Your task to perform on an android device: turn on location history Image 0: 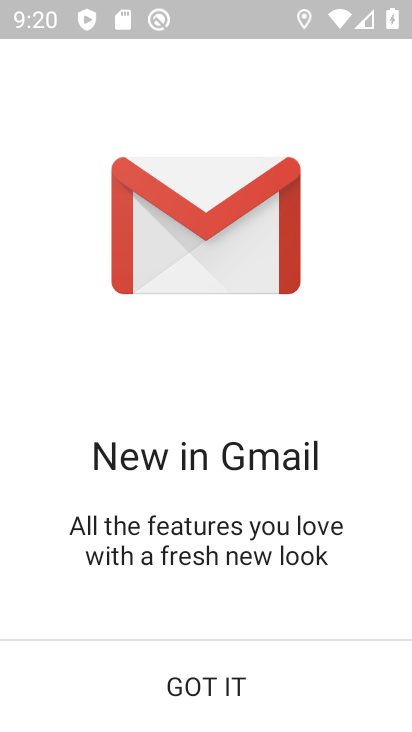
Step 0: press home button
Your task to perform on an android device: turn on location history Image 1: 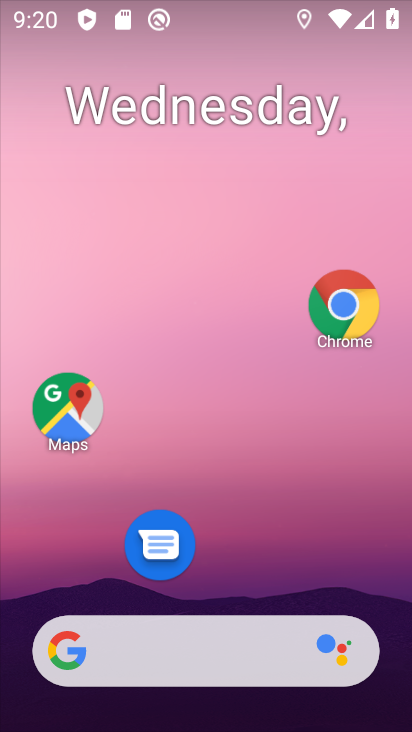
Step 1: drag from (272, 595) to (324, 348)
Your task to perform on an android device: turn on location history Image 2: 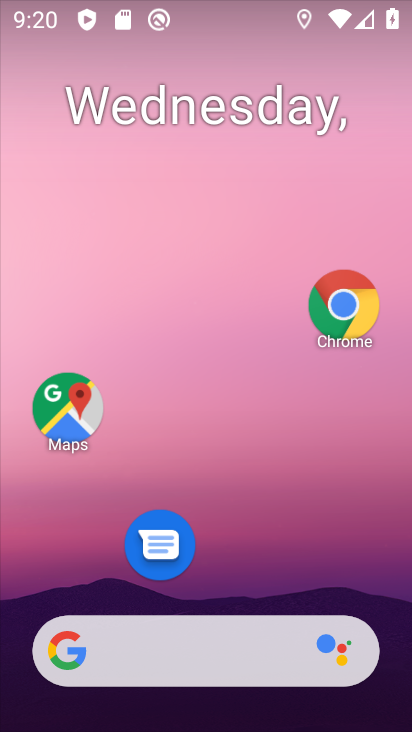
Step 2: drag from (268, 595) to (275, 105)
Your task to perform on an android device: turn on location history Image 3: 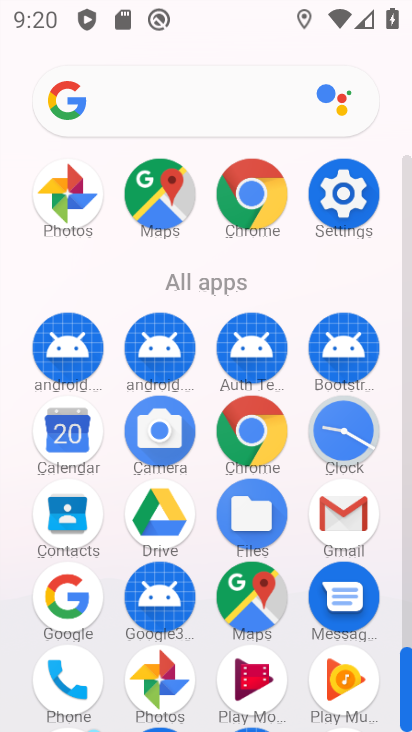
Step 3: click (344, 194)
Your task to perform on an android device: turn on location history Image 4: 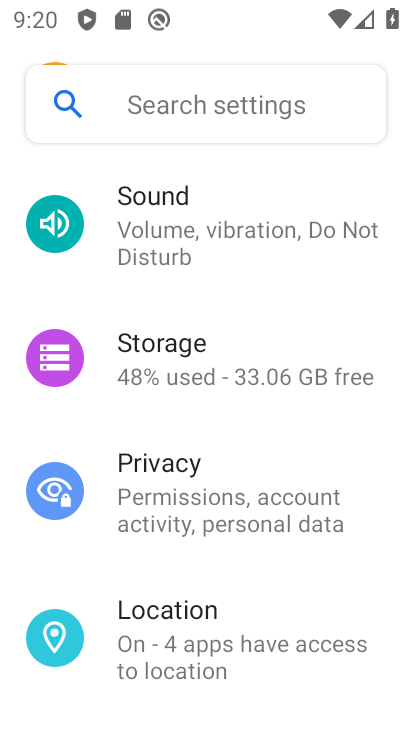
Step 4: click (215, 630)
Your task to perform on an android device: turn on location history Image 5: 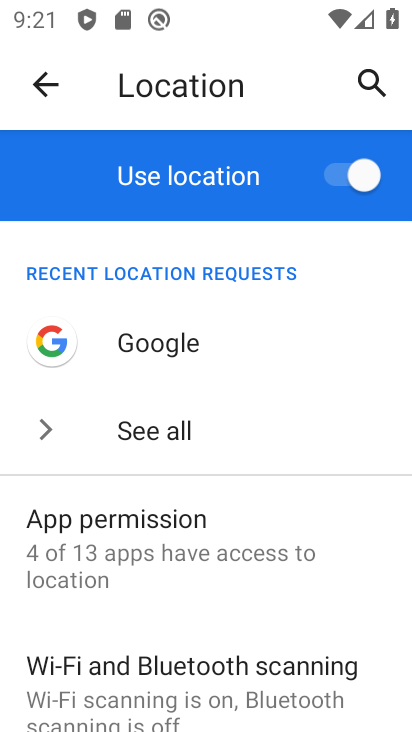
Step 5: drag from (240, 453) to (288, 208)
Your task to perform on an android device: turn on location history Image 6: 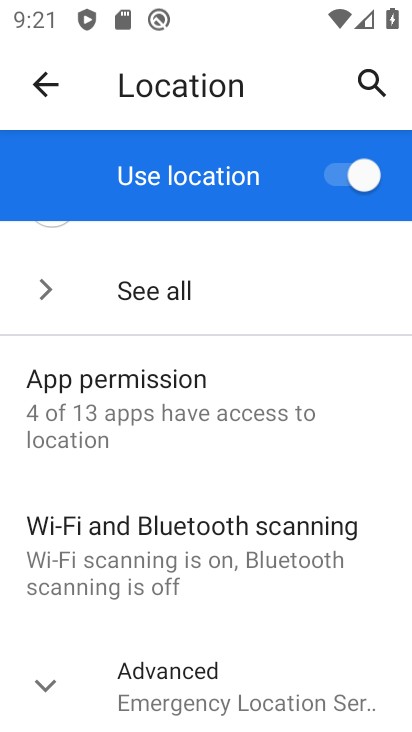
Step 6: click (250, 671)
Your task to perform on an android device: turn on location history Image 7: 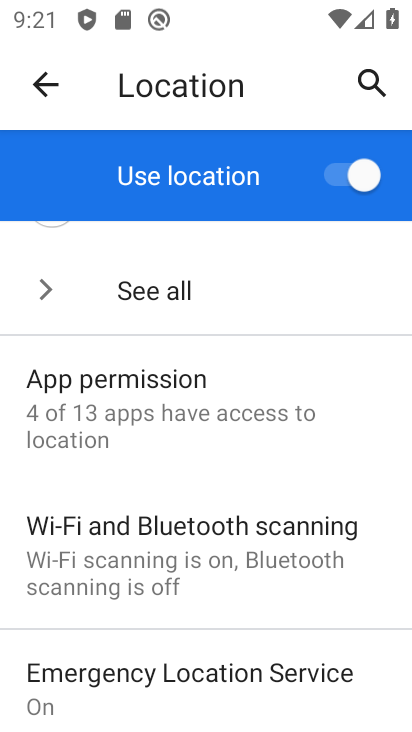
Step 7: drag from (279, 557) to (360, 373)
Your task to perform on an android device: turn on location history Image 8: 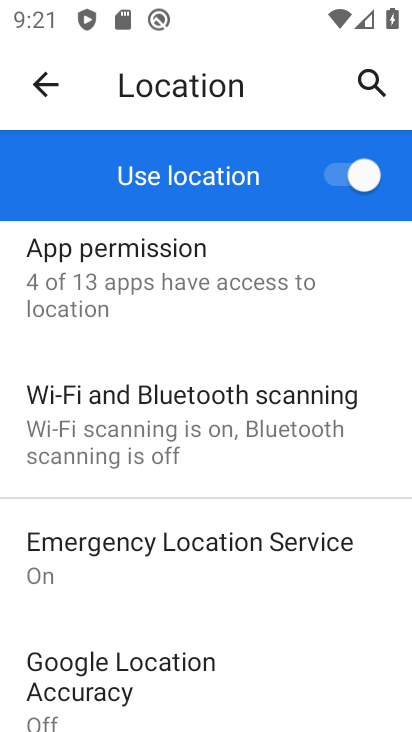
Step 8: drag from (250, 576) to (410, 349)
Your task to perform on an android device: turn on location history Image 9: 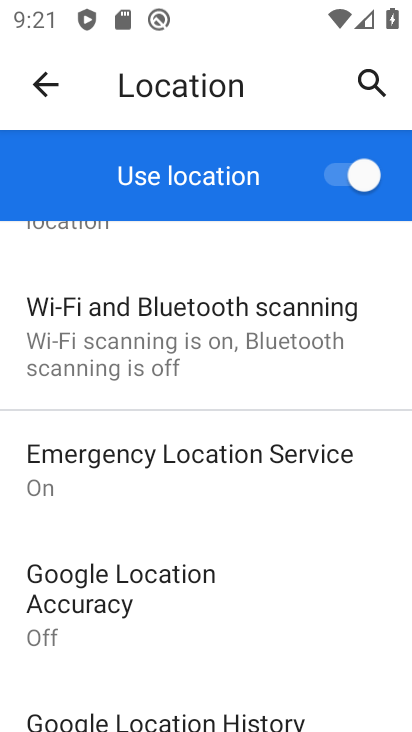
Step 9: drag from (266, 584) to (316, 243)
Your task to perform on an android device: turn on location history Image 10: 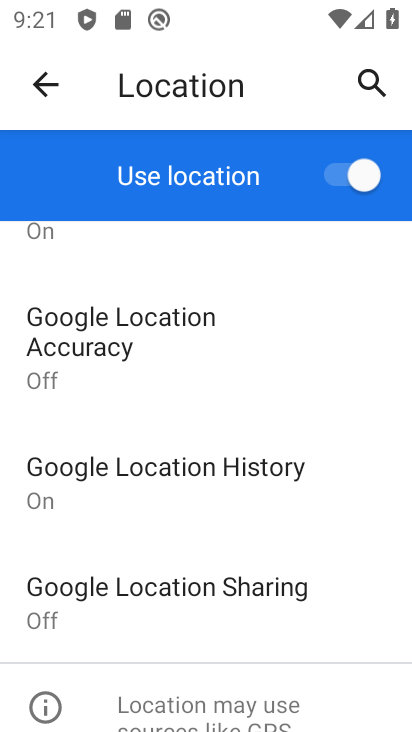
Step 10: click (268, 489)
Your task to perform on an android device: turn on location history Image 11: 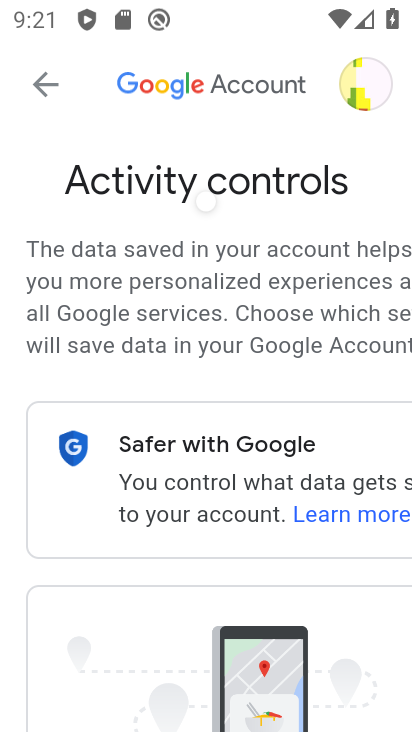
Step 11: task complete